Your task to perform on an android device: turn on airplane mode Image 0: 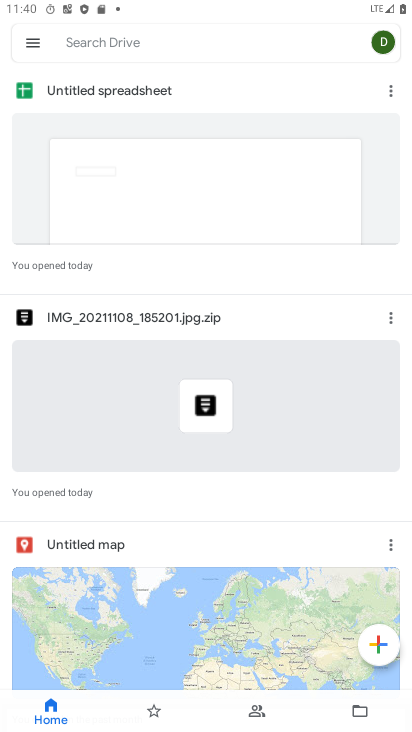
Step 0: press home button
Your task to perform on an android device: turn on airplane mode Image 1: 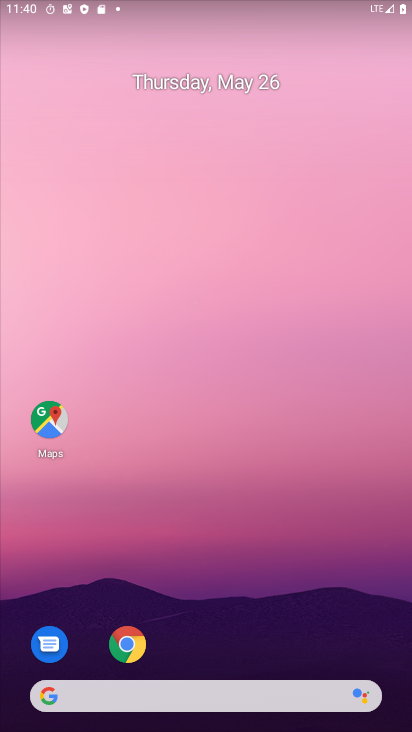
Step 1: drag from (254, 10) to (176, 676)
Your task to perform on an android device: turn on airplane mode Image 2: 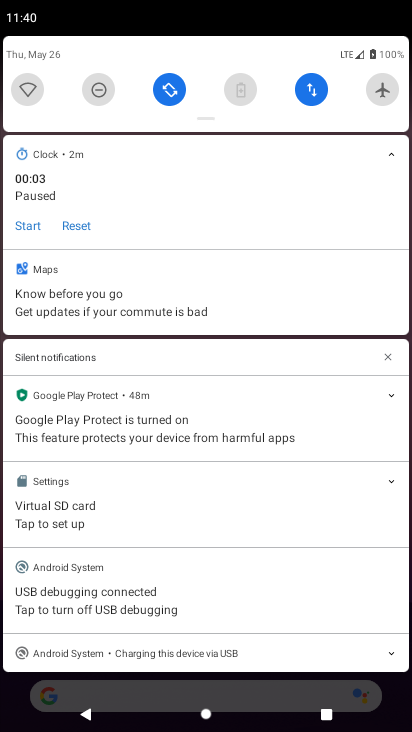
Step 2: click (381, 97)
Your task to perform on an android device: turn on airplane mode Image 3: 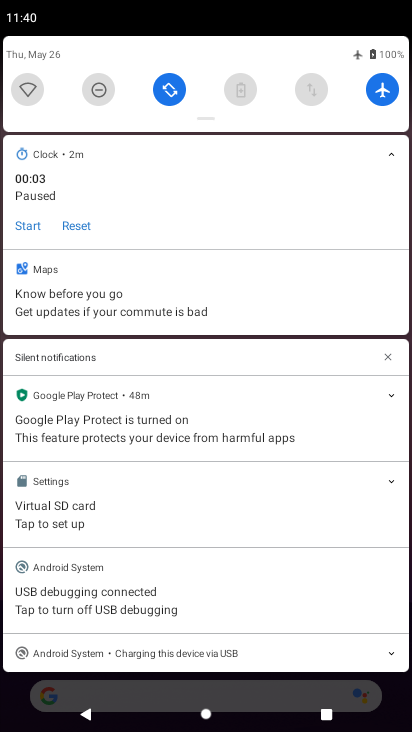
Step 3: task complete